Your task to perform on an android device: Go to Yahoo.com Image 0: 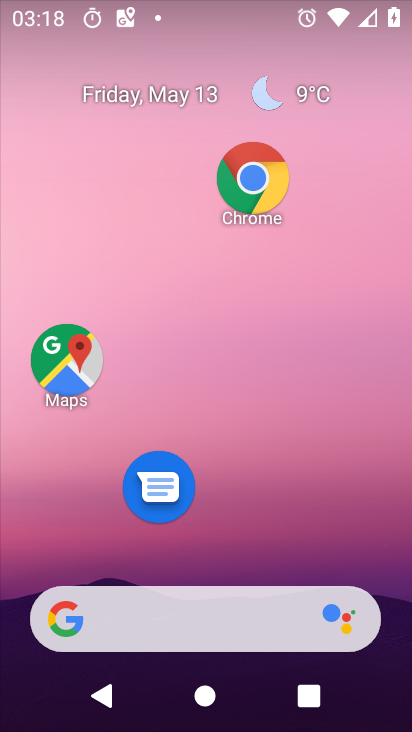
Step 0: drag from (261, 522) to (298, 83)
Your task to perform on an android device: Go to Yahoo.com Image 1: 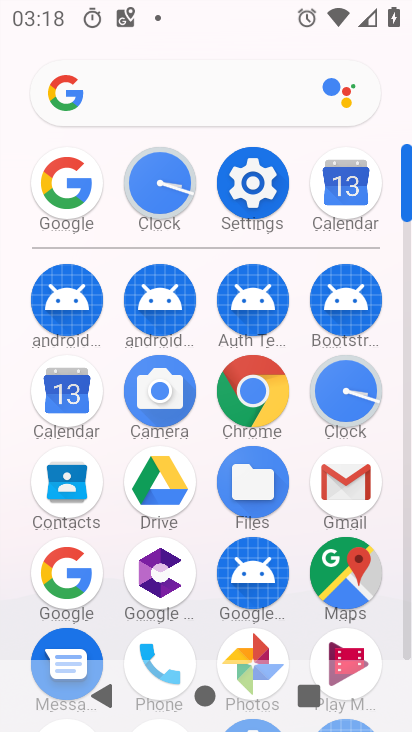
Step 1: click (251, 393)
Your task to perform on an android device: Go to Yahoo.com Image 2: 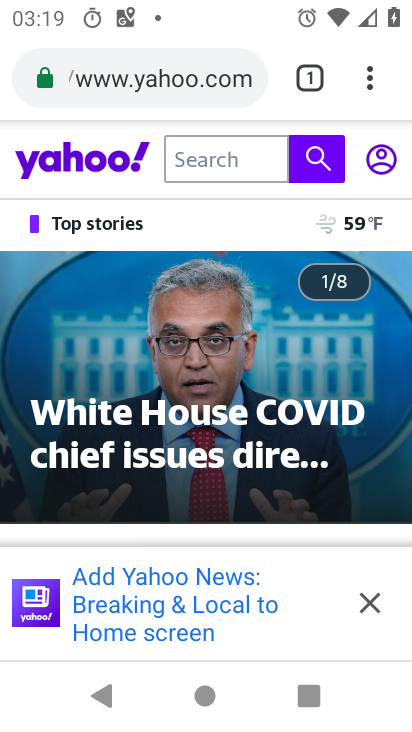
Step 2: task complete